Your task to perform on an android device: Open battery settings Image 0: 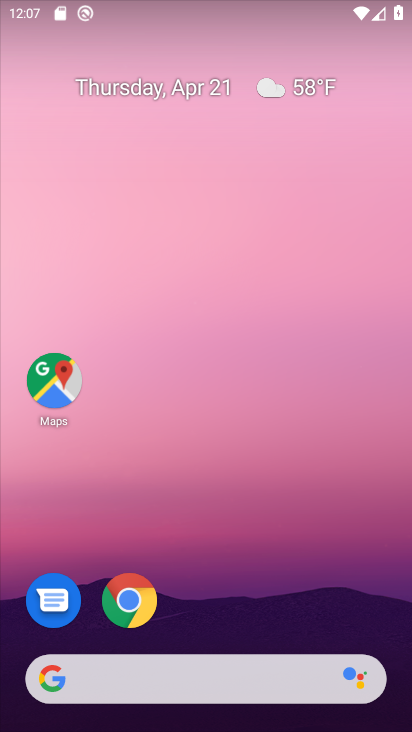
Step 0: drag from (271, 495) to (271, 112)
Your task to perform on an android device: Open battery settings Image 1: 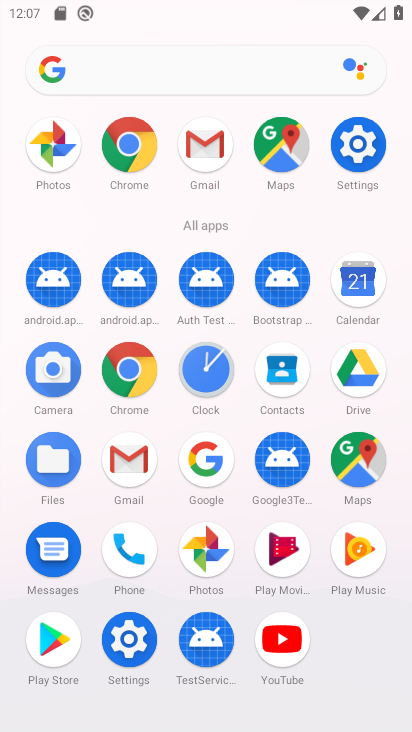
Step 1: click (356, 145)
Your task to perform on an android device: Open battery settings Image 2: 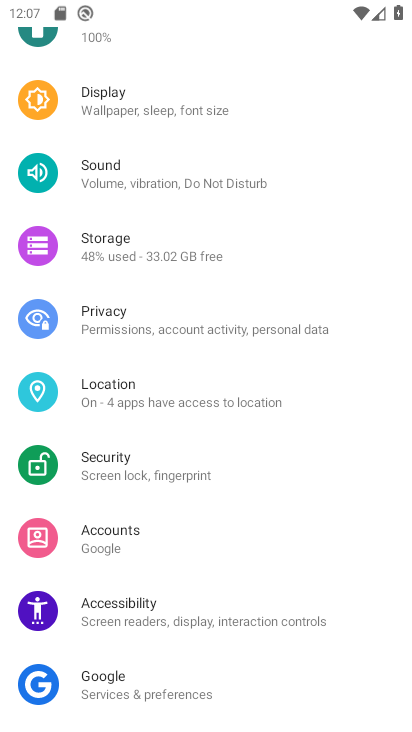
Step 2: drag from (273, 215) to (265, 376)
Your task to perform on an android device: Open battery settings Image 3: 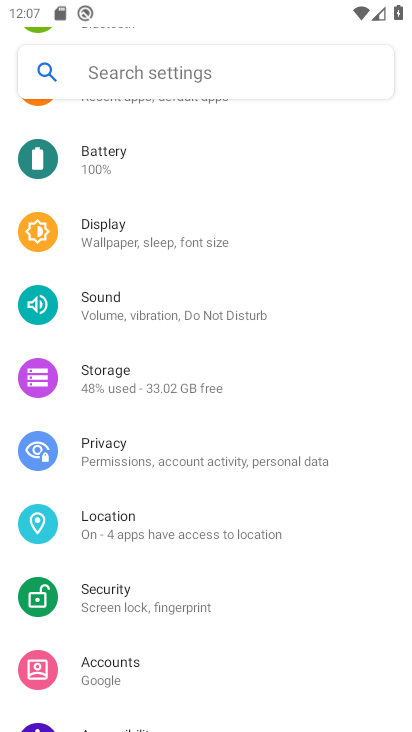
Step 3: click (217, 155)
Your task to perform on an android device: Open battery settings Image 4: 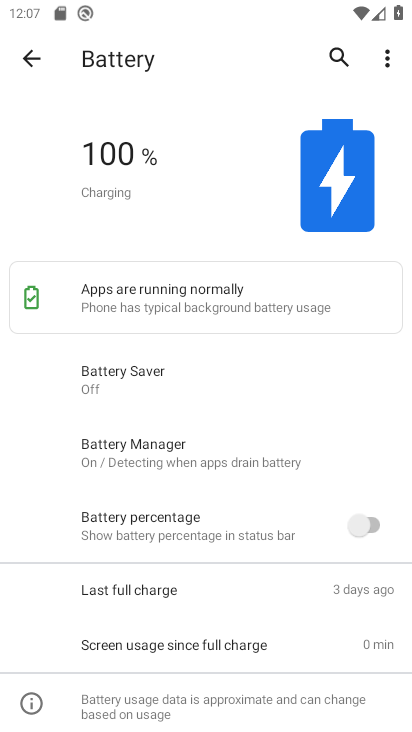
Step 4: task complete